Your task to perform on an android device: Show the shopping cart on costco.com. Add "corsair k70" to the cart on costco.com Image 0: 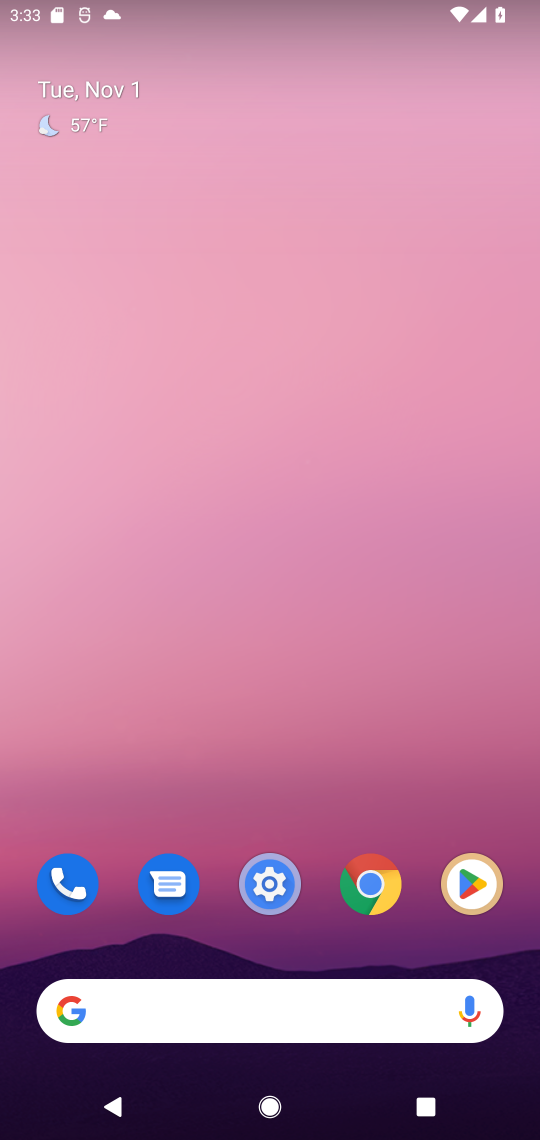
Step 0: press home button
Your task to perform on an android device: Show the shopping cart on costco.com. Add "corsair k70" to the cart on costco.com Image 1: 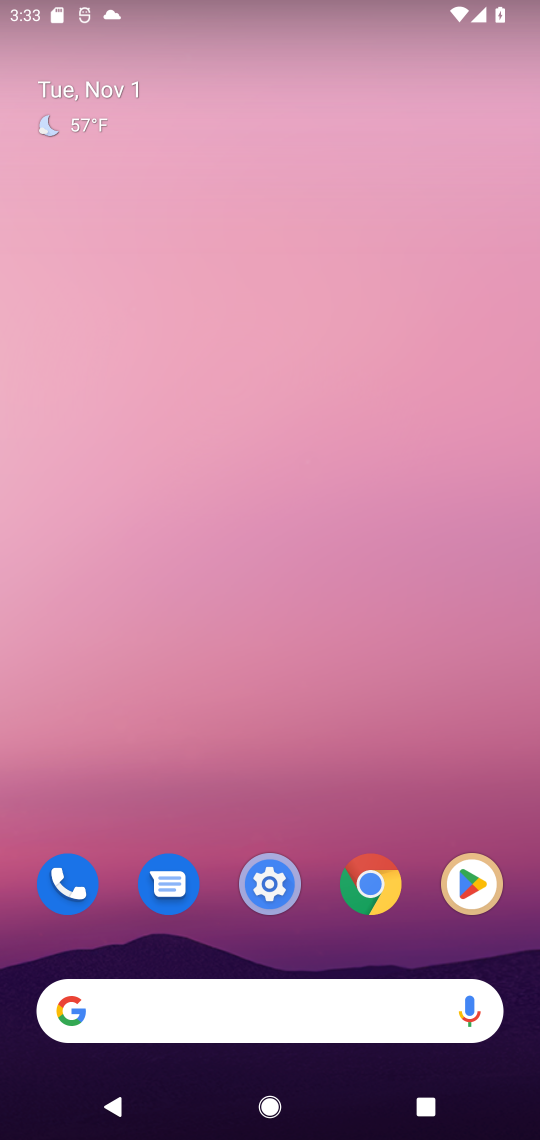
Step 1: click (130, 1009)
Your task to perform on an android device: Show the shopping cart on costco.com. Add "corsair k70" to the cart on costco.com Image 2: 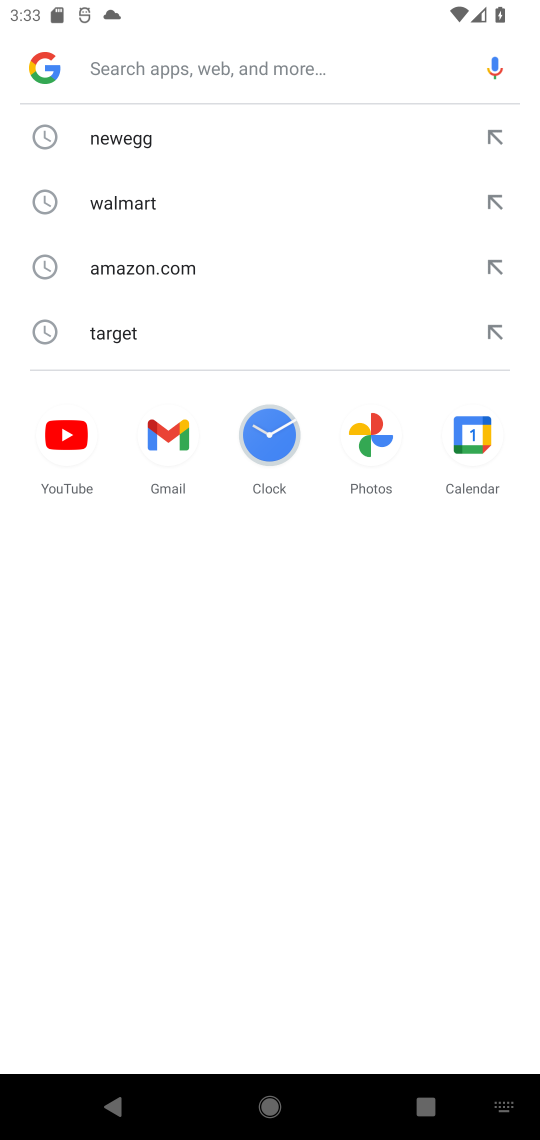
Step 2: press enter
Your task to perform on an android device: Show the shopping cart on costco.com. Add "corsair k70" to the cart on costco.com Image 3: 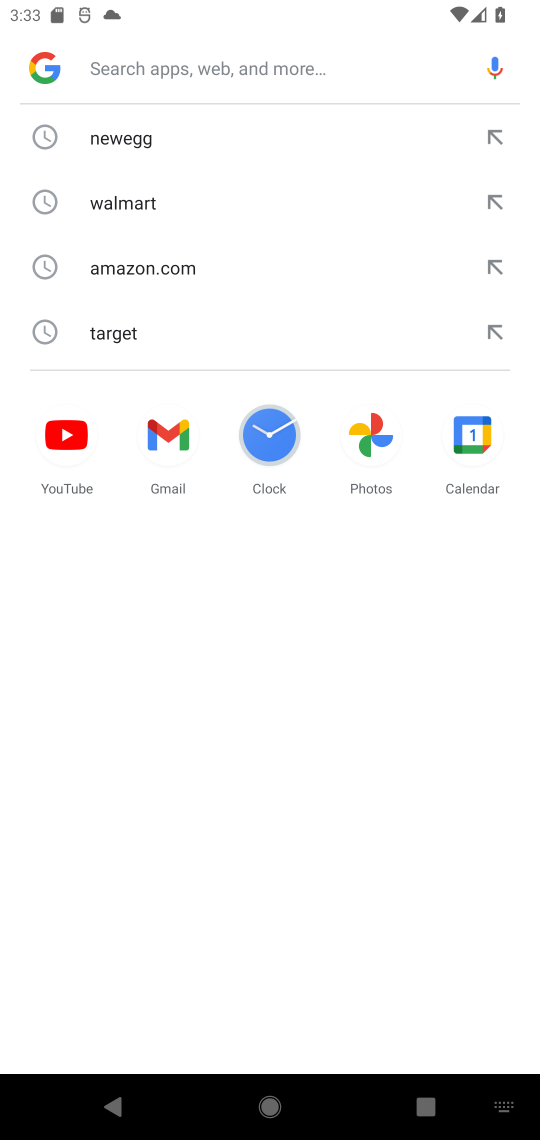
Step 3: type "costco.com"
Your task to perform on an android device: Show the shopping cart on costco.com. Add "corsair k70" to the cart on costco.com Image 4: 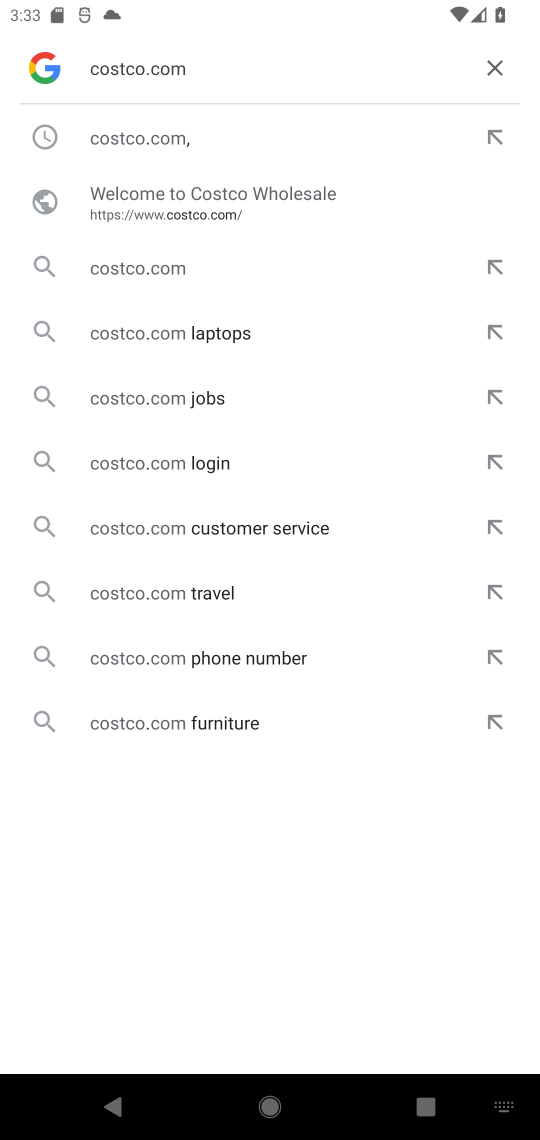
Step 4: press enter
Your task to perform on an android device: Show the shopping cart on costco.com. Add "corsair k70" to the cart on costco.com Image 5: 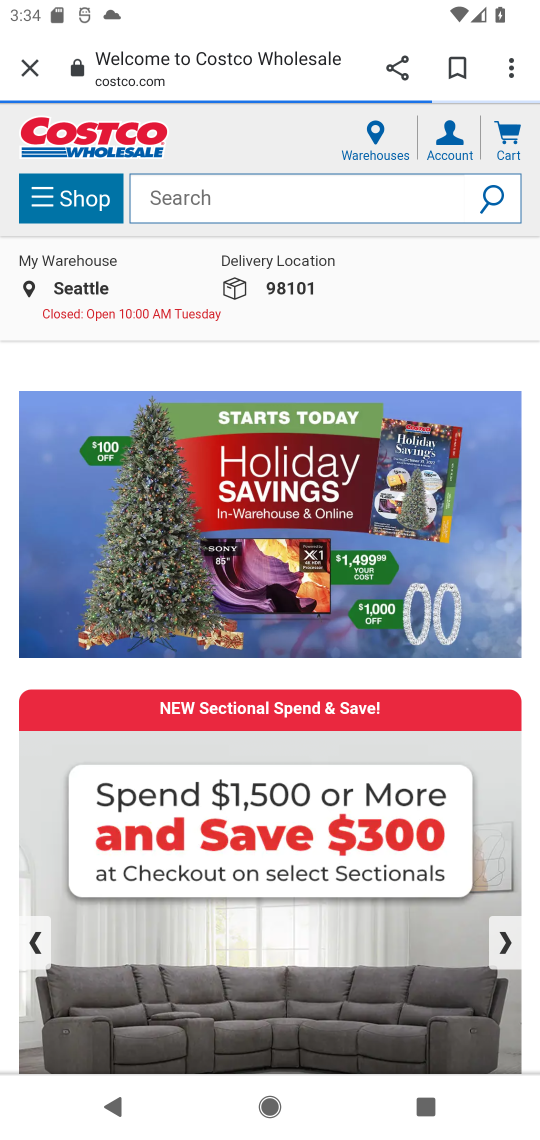
Step 5: click (168, 193)
Your task to perform on an android device: Show the shopping cart on costco.com. Add "corsair k70" to the cart on costco.com Image 6: 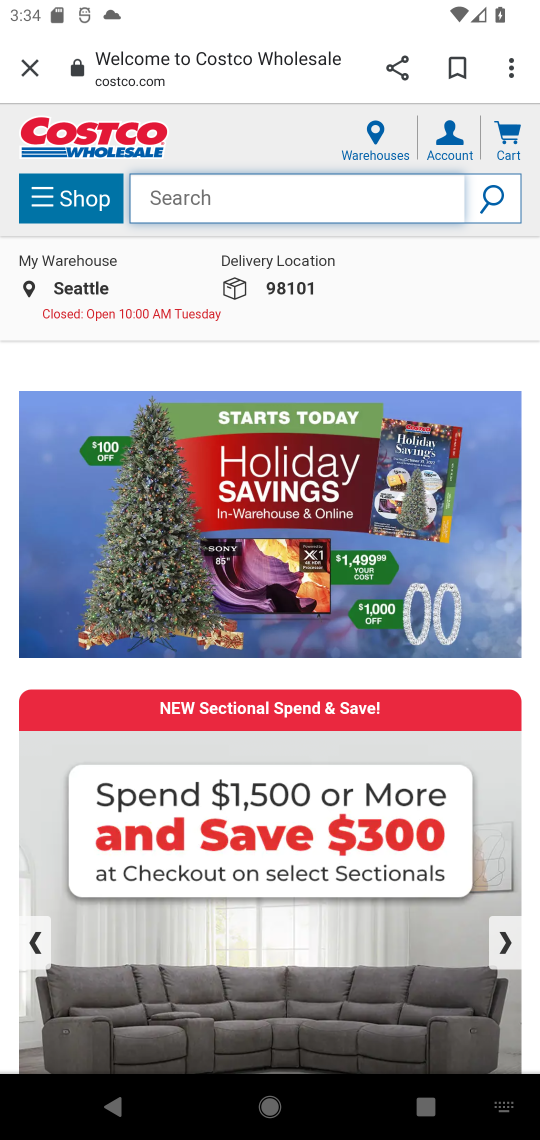
Step 6: type "corsair k70"
Your task to perform on an android device: Show the shopping cart on costco.com. Add "corsair k70" to the cart on costco.com Image 7: 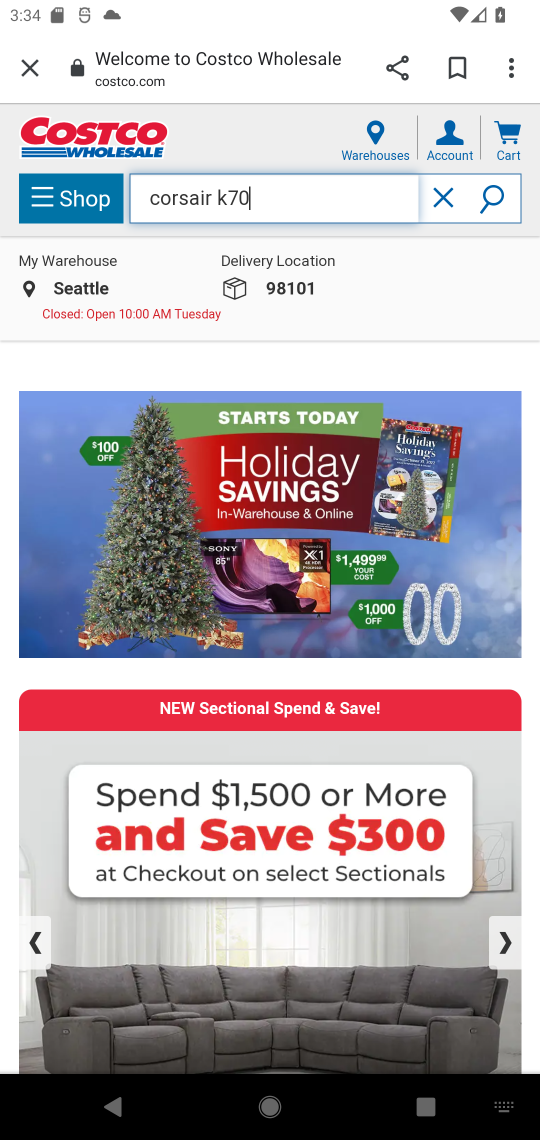
Step 7: click (495, 197)
Your task to perform on an android device: Show the shopping cart on costco.com. Add "corsair k70" to the cart on costco.com Image 8: 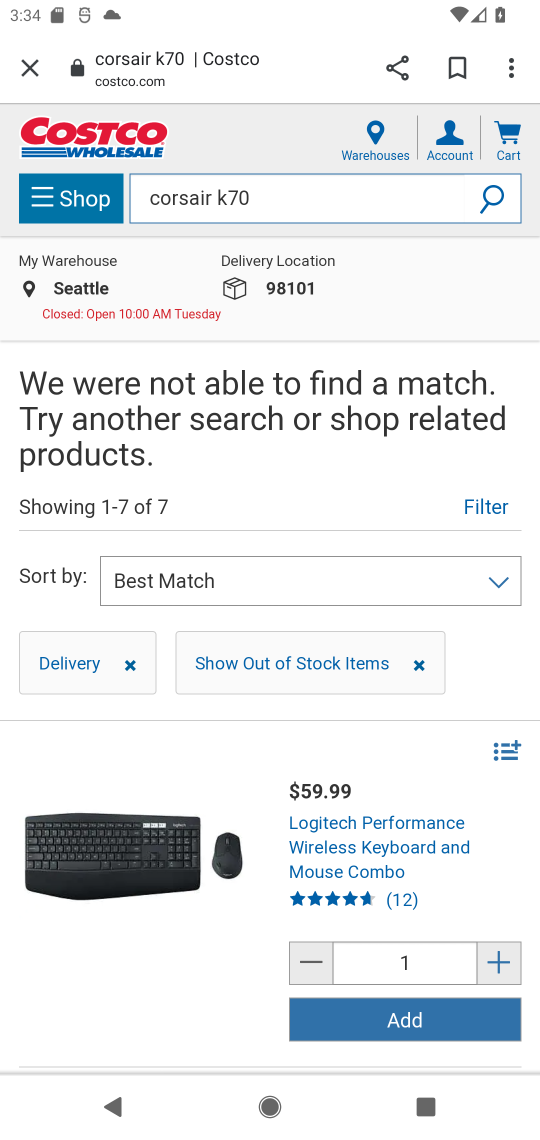
Step 8: task complete